Your task to perform on an android device: Go to CNN.com Image 0: 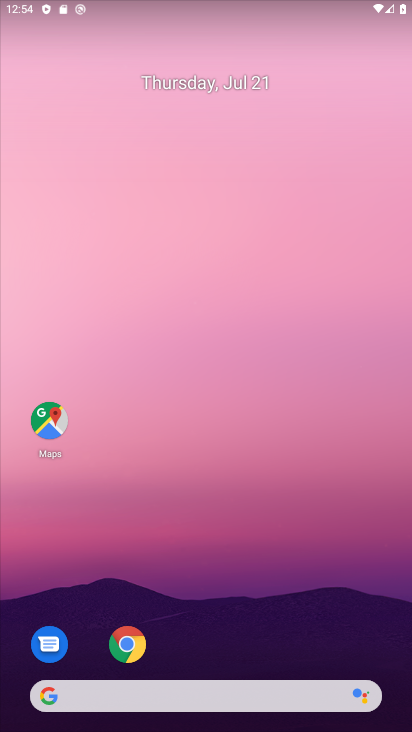
Step 0: click (132, 638)
Your task to perform on an android device: Go to CNN.com Image 1: 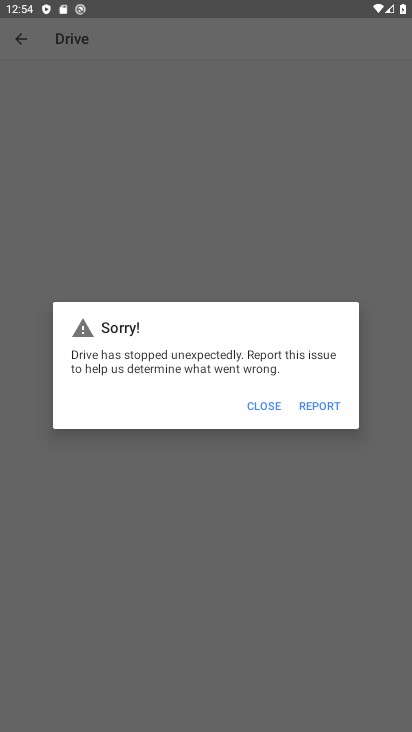
Step 1: press home button
Your task to perform on an android device: Go to CNN.com Image 2: 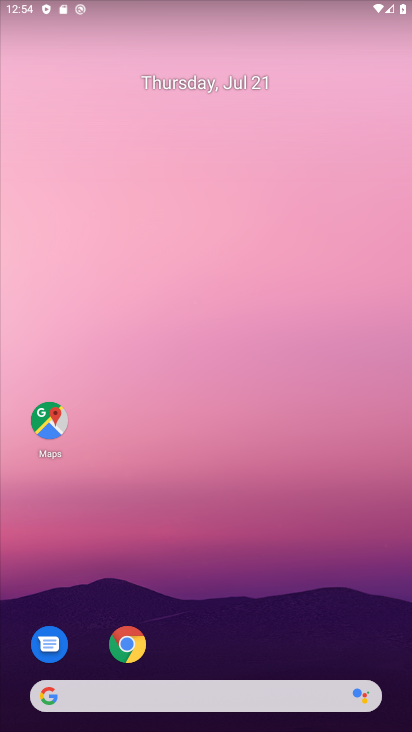
Step 2: click (130, 649)
Your task to perform on an android device: Go to CNN.com Image 3: 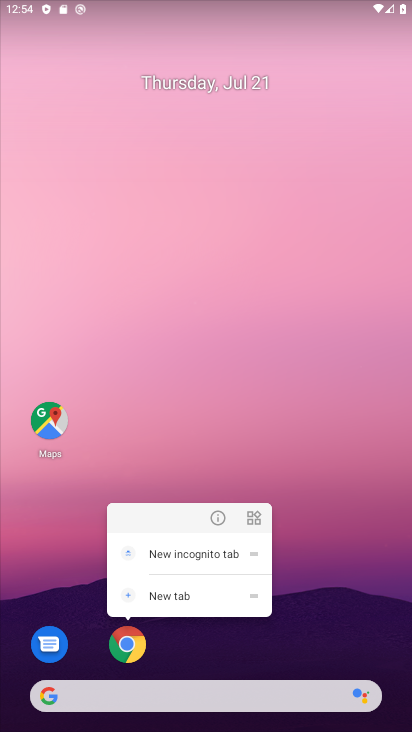
Step 3: click (133, 634)
Your task to perform on an android device: Go to CNN.com Image 4: 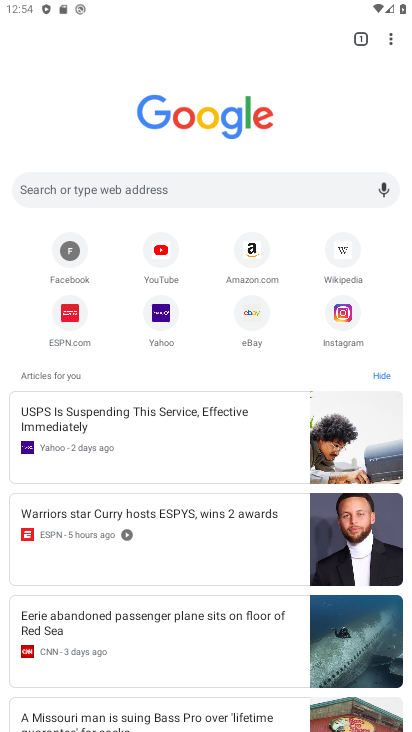
Step 4: click (183, 190)
Your task to perform on an android device: Go to CNN.com Image 5: 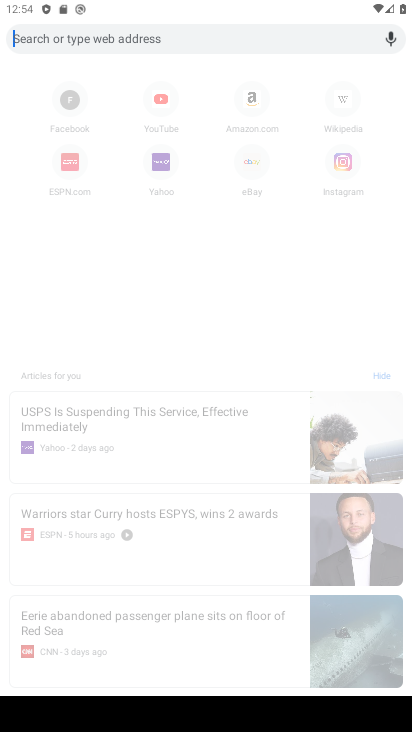
Step 5: type "cnn"
Your task to perform on an android device: Go to CNN.com Image 6: 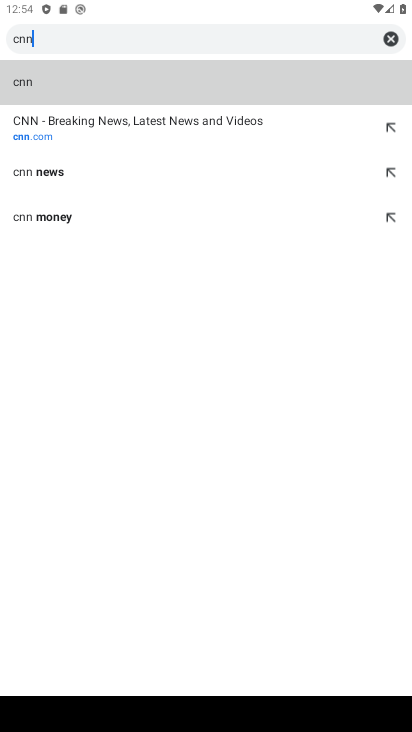
Step 6: type ""
Your task to perform on an android device: Go to CNN.com Image 7: 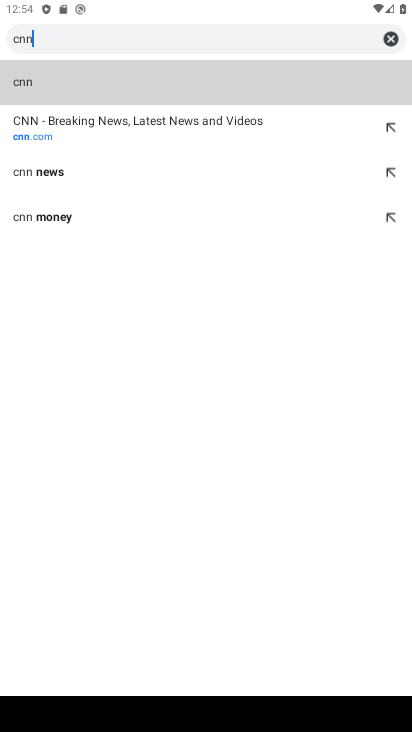
Step 7: click (77, 145)
Your task to perform on an android device: Go to CNN.com Image 8: 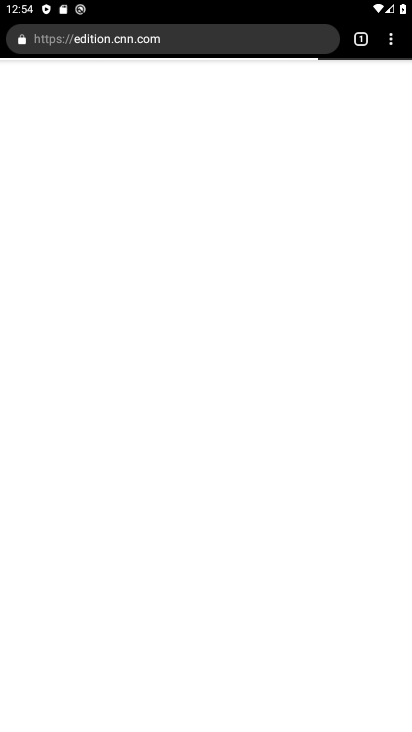
Step 8: task complete